Your task to perform on an android device: Open calendar and show me the fourth week of next month Image 0: 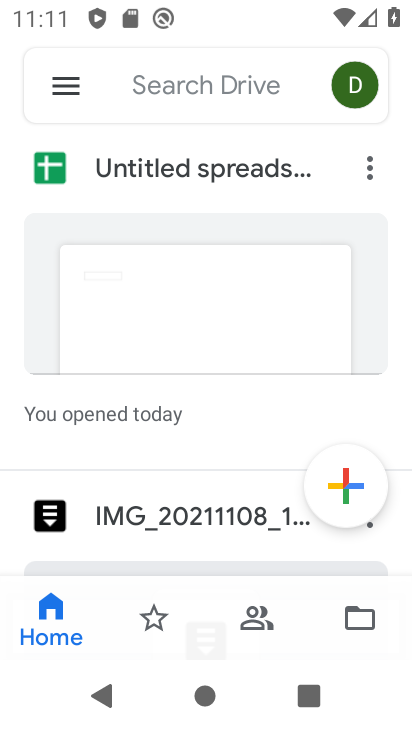
Step 0: press home button
Your task to perform on an android device: Open calendar and show me the fourth week of next month Image 1: 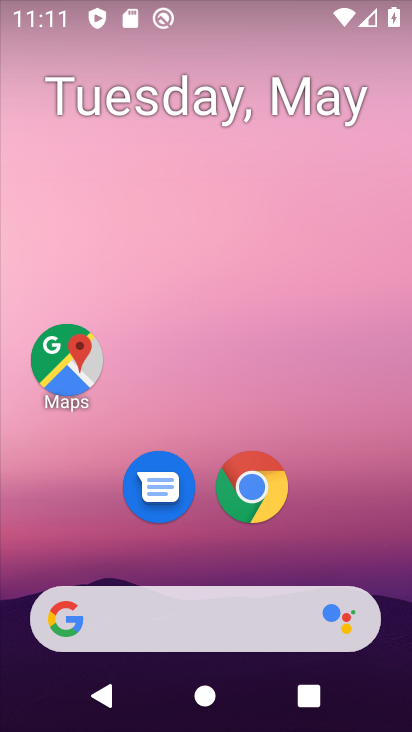
Step 1: click (317, 667)
Your task to perform on an android device: Open calendar and show me the fourth week of next month Image 2: 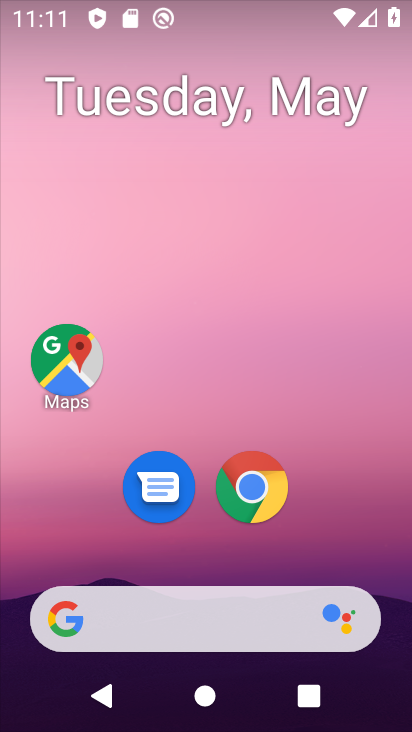
Step 2: drag from (313, 480) to (353, 162)
Your task to perform on an android device: Open calendar and show me the fourth week of next month Image 3: 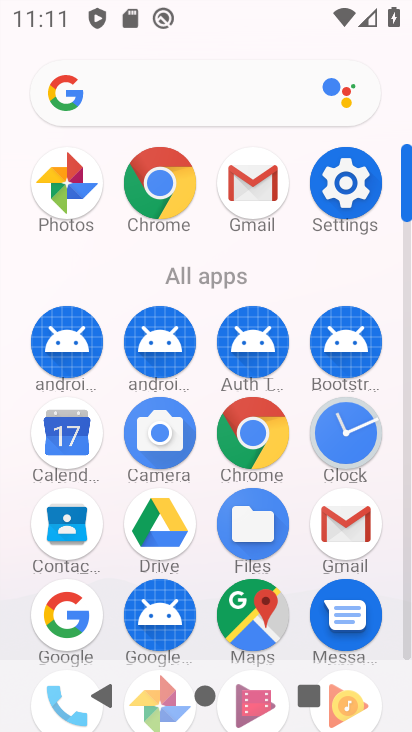
Step 3: click (54, 440)
Your task to perform on an android device: Open calendar and show me the fourth week of next month Image 4: 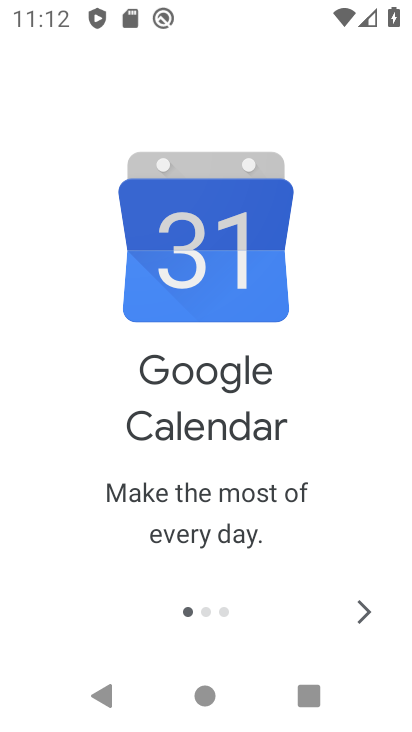
Step 4: click (363, 614)
Your task to perform on an android device: Open calendar and show me the fourth week of next month Image 5: 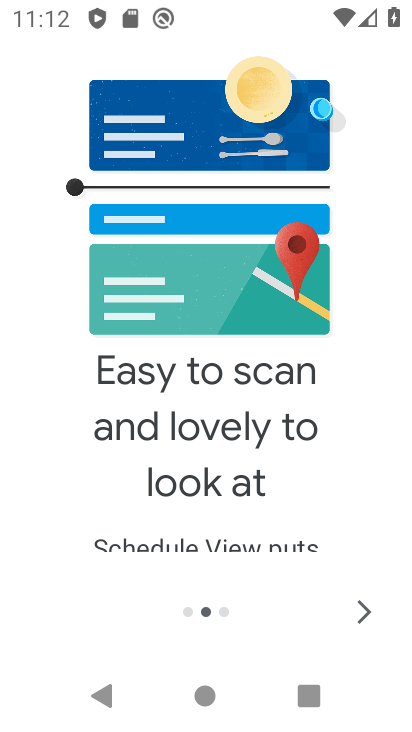
Step 5: click (354, 618)
Your task to perform on an android device: Open calendar and show me the fourth week of next month Image 6: 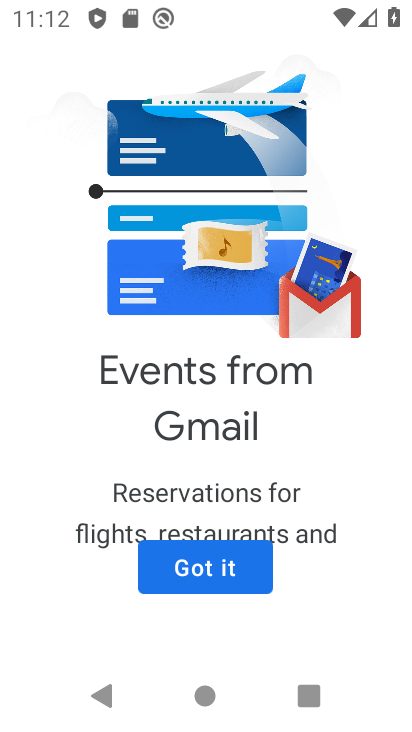
Step 6: click (179, 560)
Your task to perform on an android device: Open calendar and show me the fourth week of next month Image 7: 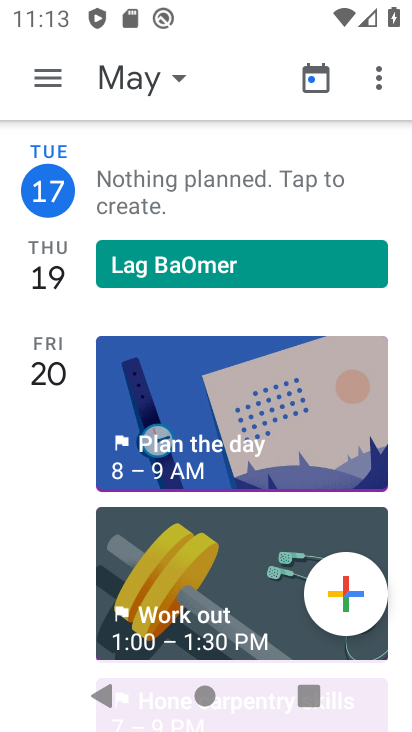
Step 7: click (50, 72)
Your task to perform on an android device: Open calendar and show me the fourth week of next month Image 8: 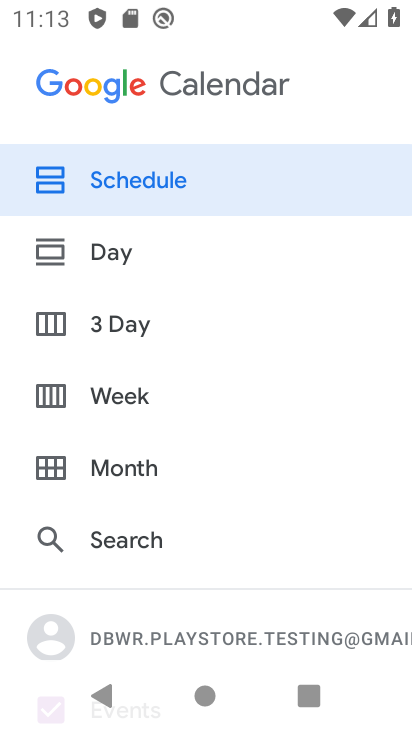
Step 8: click (146, 394)
Your task to perform on an android device: Open calendar and show me the fourth week of next month Image 9: 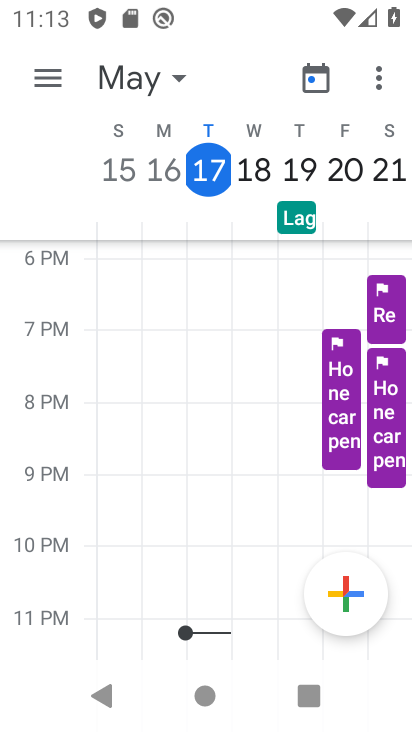
Step 9: click (47, 67)
Your task to perform on an android device: Open calendar and show me the fourth week of next month Image 10: 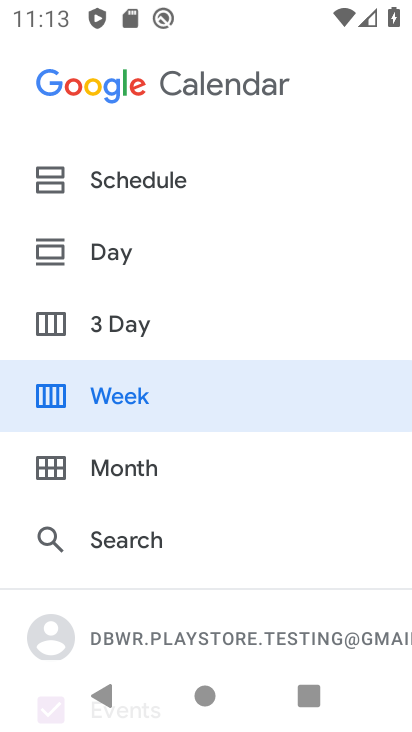
Step 10: click (95, 470)
Your task to perform on an android device: Open calendar and show me the fourth week of next month Image 11: 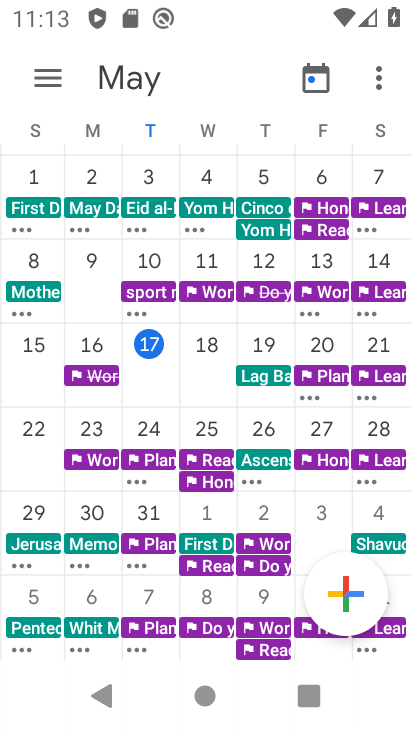
Step 11: task complete